Your task to perform on an android device: change the clock style Image 0: 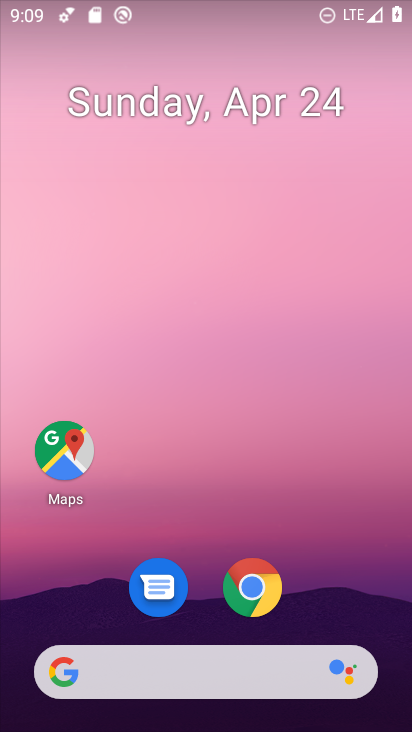
Step 0: drag from (391, 548) to (383, 218)
Your task to perform on an android device: change the clock style Image 1: 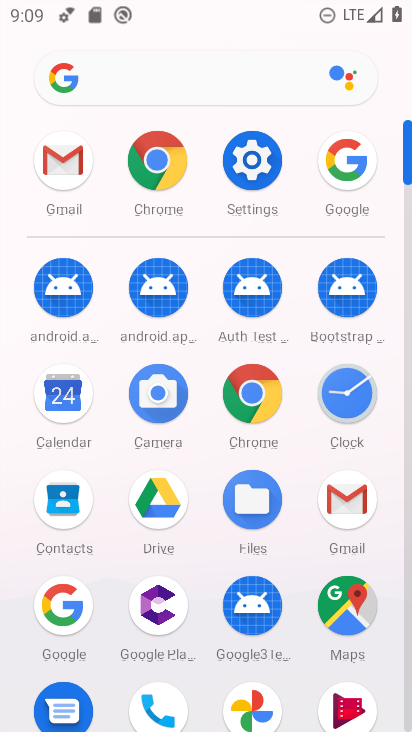
Step 1: click (349, 374)
Your task to perform on an android device: change the clock style Image 2: 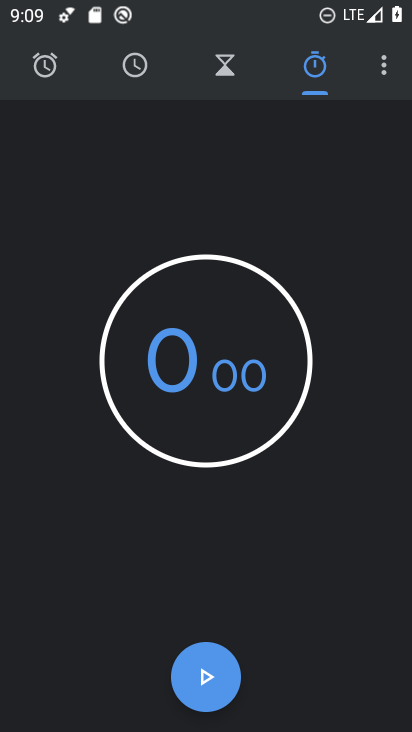
Step 2: click (386, 72)
Your task to perform on an android device: change the clock style Image 3: 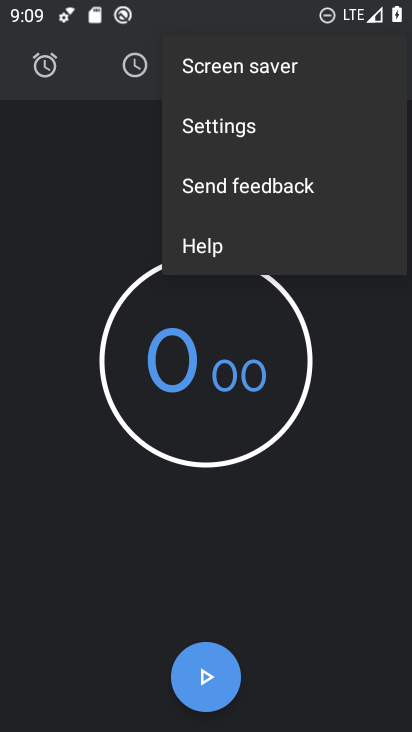
Step 3: click (237, 135)
Your task to perform on an android device: change the clock style Image 4: 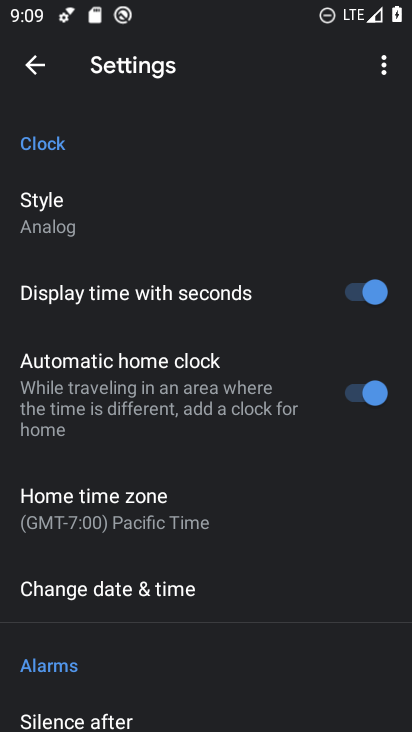
Step 4: click (62, 216)
Your task to perform on an android device: change the clock style Image 5: 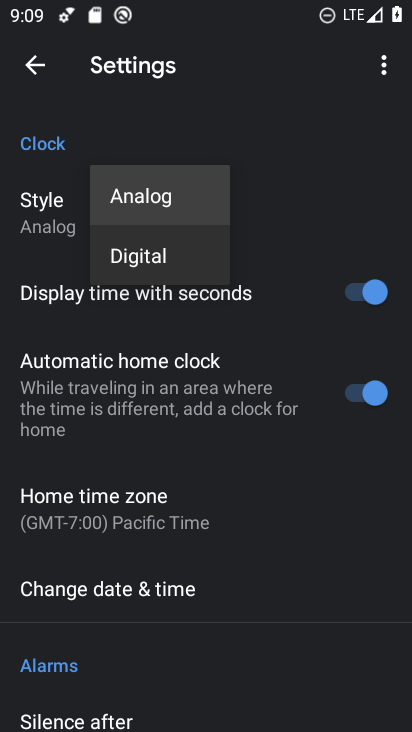
Step 5: click (134, 255)
Your task to perform on an android device: change the clock style Image 6: 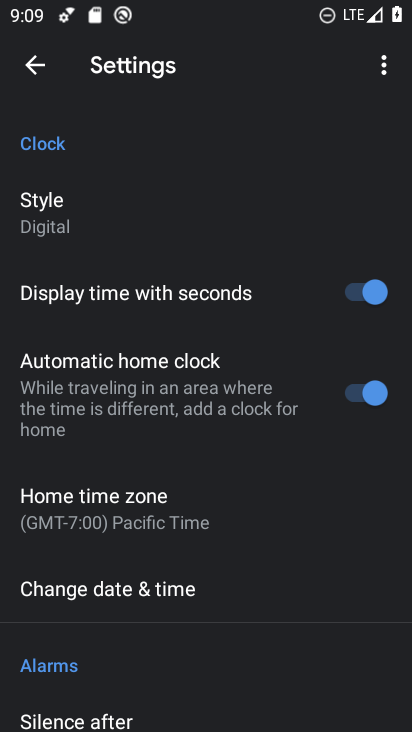
Step 6: task complete